Your task to perform on an android device: Turn on the flashlight Image 0: 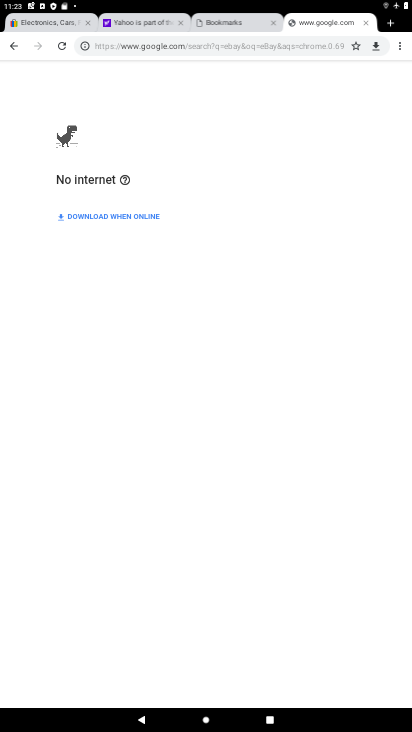
Step 0: press home button
Your task to perform on an android device: Turn on the flashlight Image 1: 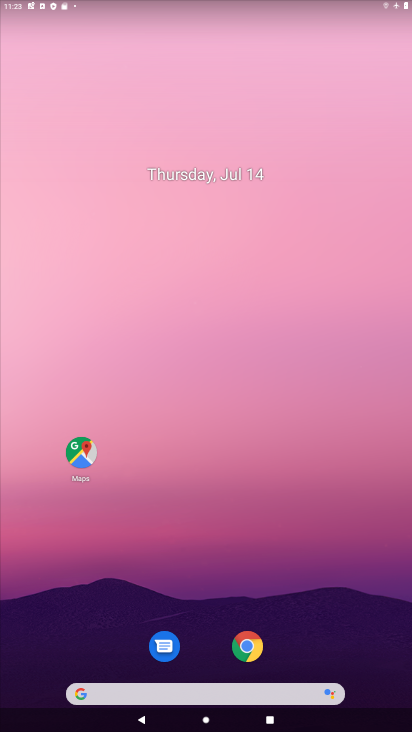
Step 1: task complete